Your task to perform on an android device: Open CNN.com Image 0: 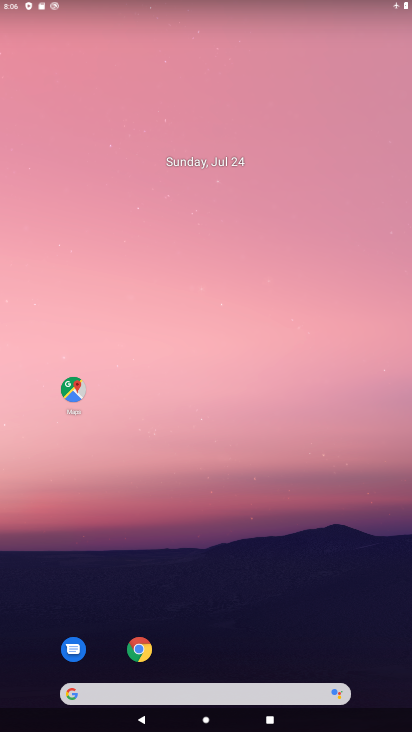
Step 0: drag from (241, 673) to (240, 59)
Your task to perform on an android device: Open CNN.com Image 1: 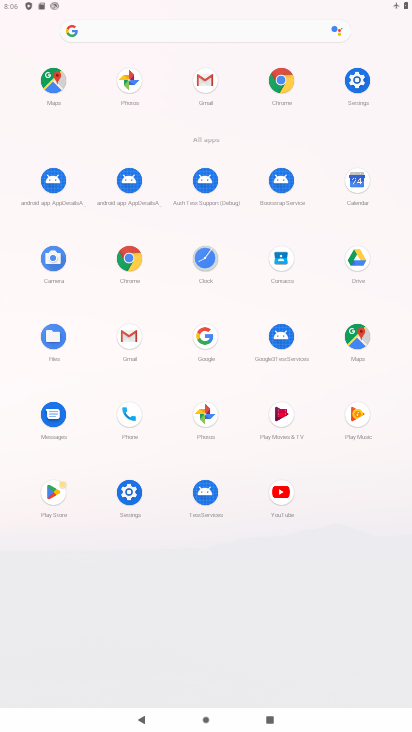
Step 1: click (119, 268)
Your task to perform on an android device: Open CNN.com Image 2: 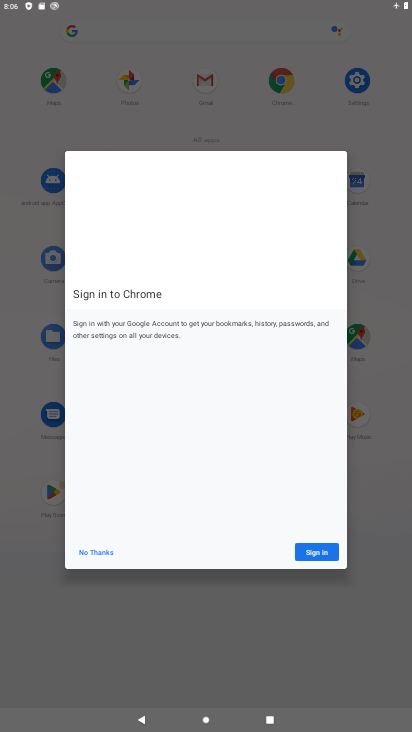
Step 2: click (306, 554)
Your task to perform on an android device: Open CNN.com Image 3: 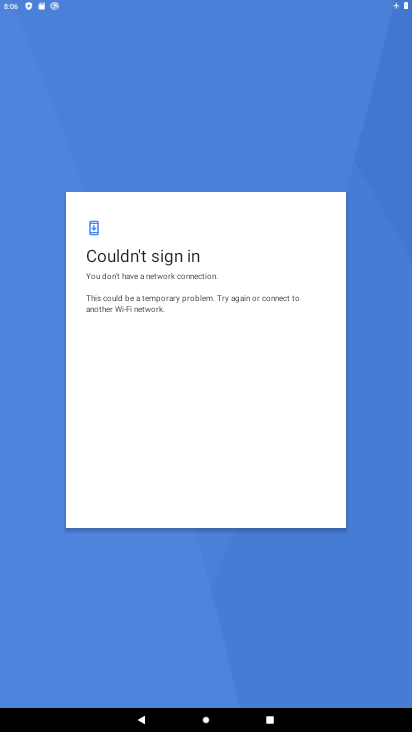
Step 3: task complete